Your task to perform on an android device: Search for a 4k TV on Best Buy Image 0: 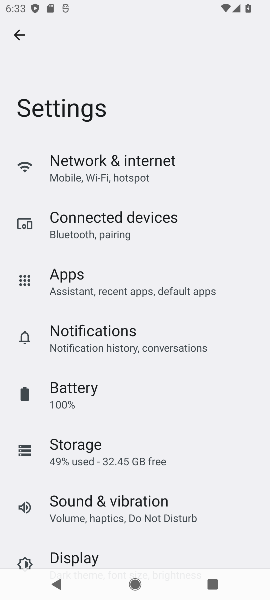
Step 0: press home button
Your task to perform on an android device: Search for a 4k TV on Best Buy Image 1: 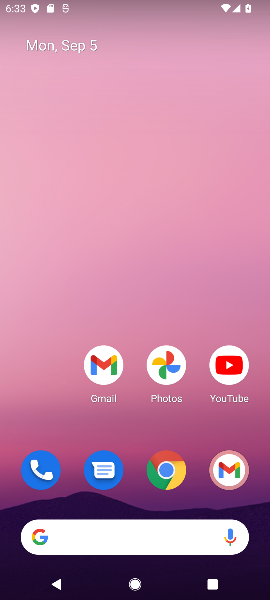
Step 1: click (142, 528)
Your task to perform on an android device: Search for a 4k TV on Best Buy Image 2: 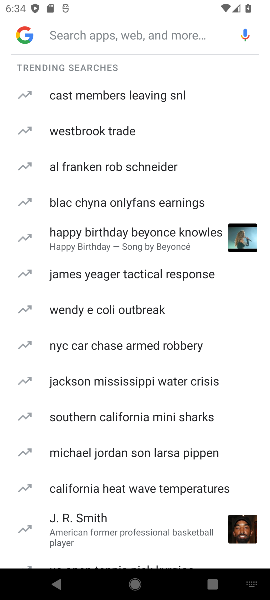
Step 2: type "best buy"
Your task to perform on an android device: Search for a 4k TV on Best Buy Image 3: 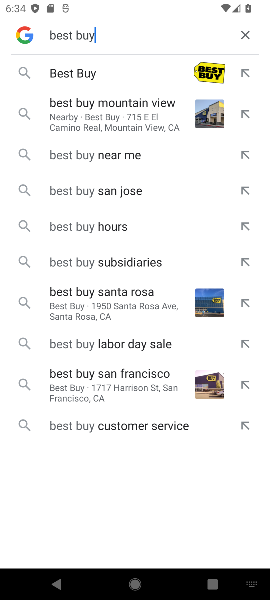
Step 3: click (73, 71)
Your task to perform on an android device: Search for a 4k TV on Best Buy Image 4: 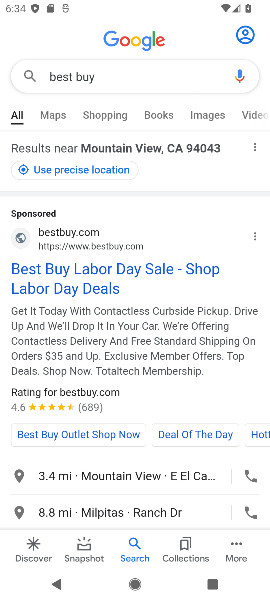
Step 4: click (62, 271)
Your task to perform on an android device: Search for a 4k TV on Best Buy Image 5: 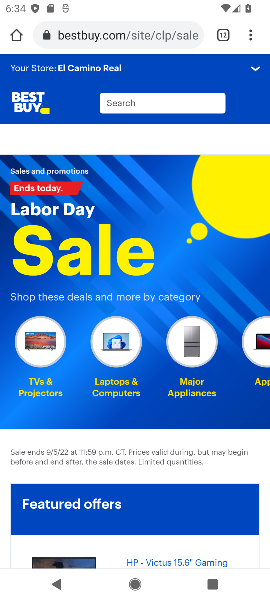
Step 5: click (150, 99)
Your task to perform on an android device: Search for a 4k TV on Best Buy Image 6: 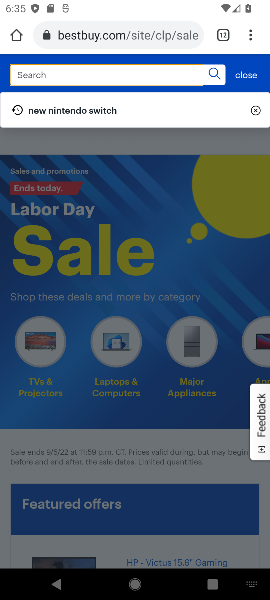
Step 6: type "4k tv"
Your task to perform on an android device: Search for a 4k TV on Best Buy Image 7: 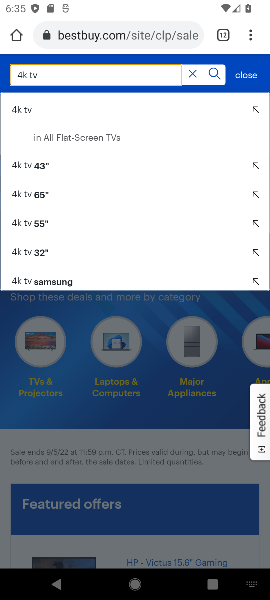
Step 7: click (215, 75)
Your task to perform on an android device: Search for a 4k TV on Best Buy Image 8: 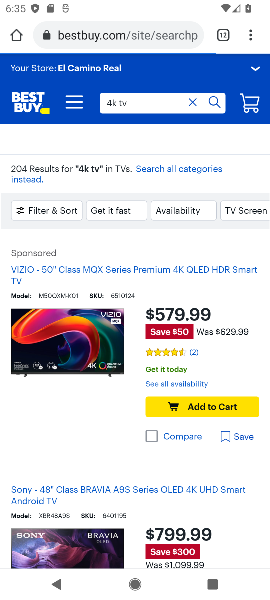
Step 8: task complete